Your task to perform on an android device: Go to Google Image 0: 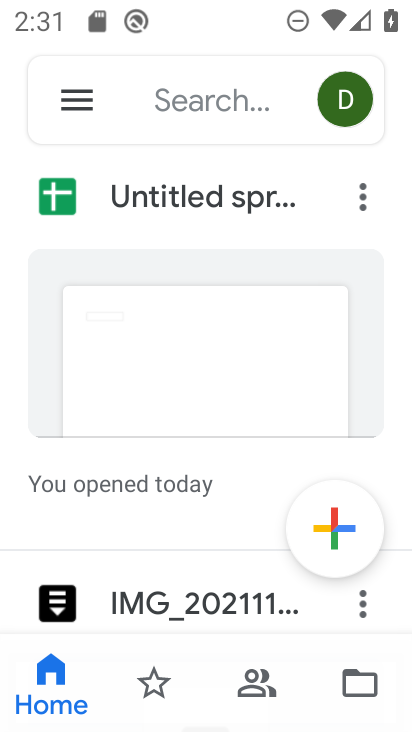
Step 0: press home button
Your task to perform on an android device: Go to Google Image 1: 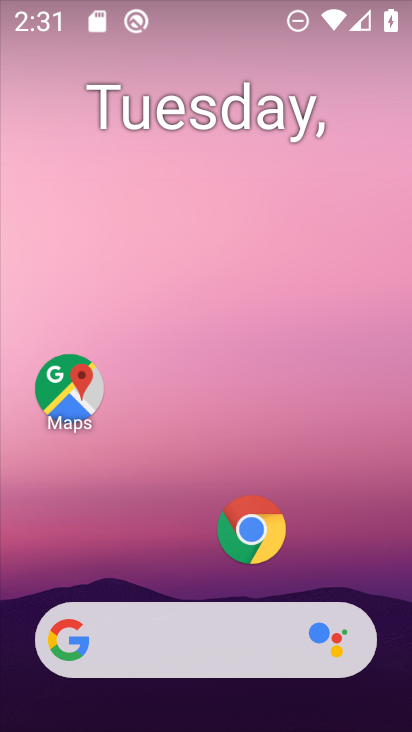
Step 1: click (89, 630)
Your task to perform on an android device: Go to Google Image 2: 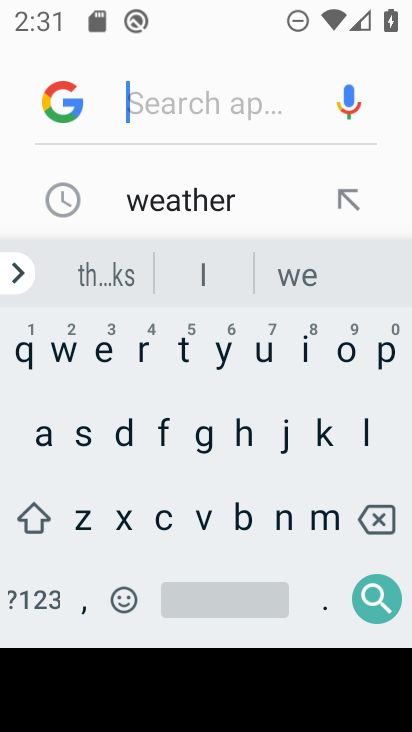
Step 2: click (51, 111)
Your task to perform on an android device: Go to Google Image 3: 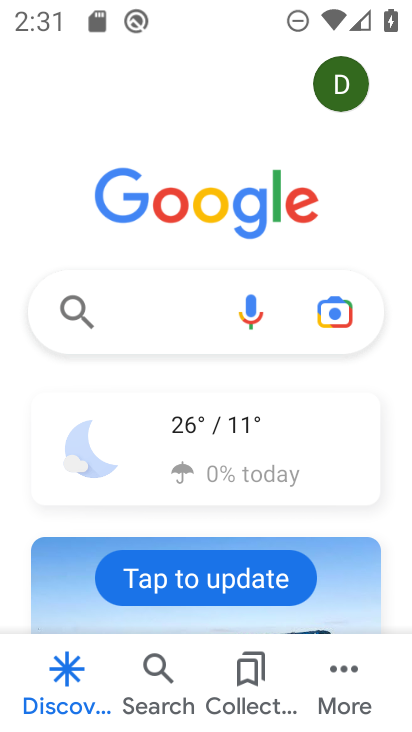
Step 3: task complete